Your task to perform on an android device: turn on wifi Image 0: 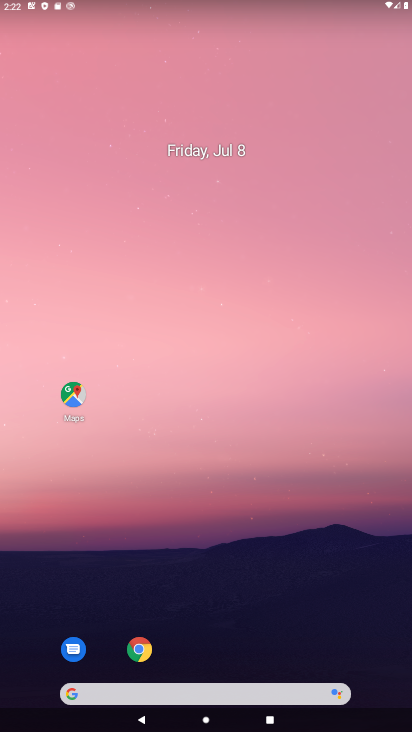
Step 0: drag from (384, 674) to (319, 32)
Your task to perform on an android device: turn on wifi Image 1: 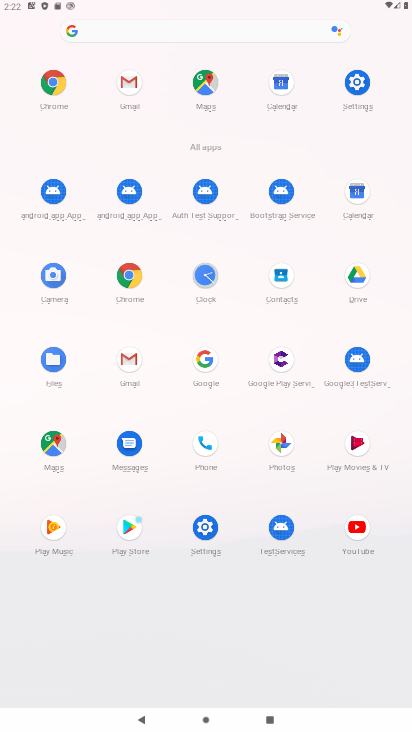
Step 1: click (204, 526)
Your task to perform on an android device: turn on wifi Image 2: 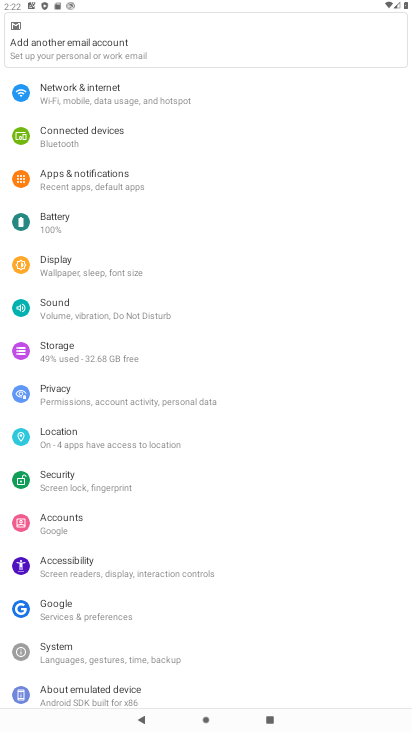
Step 2: click (66, 91)
Your task to perform on an android device: turn on wifi Image 3: 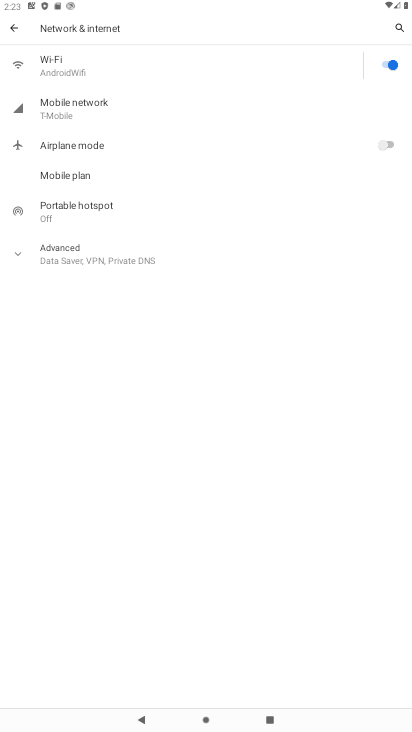
Step 3: task complete